Your task to perform on an android device: Open Google Chrome Image 0: 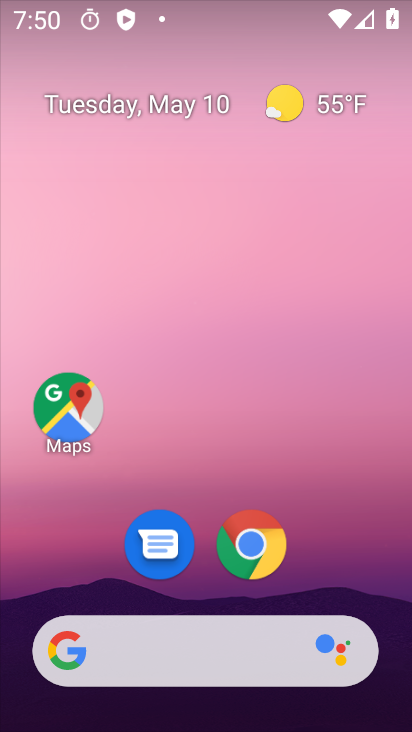
Step 0: click (258, 546)
Your task to perform on an android device: Open Google Chrome Image 1: 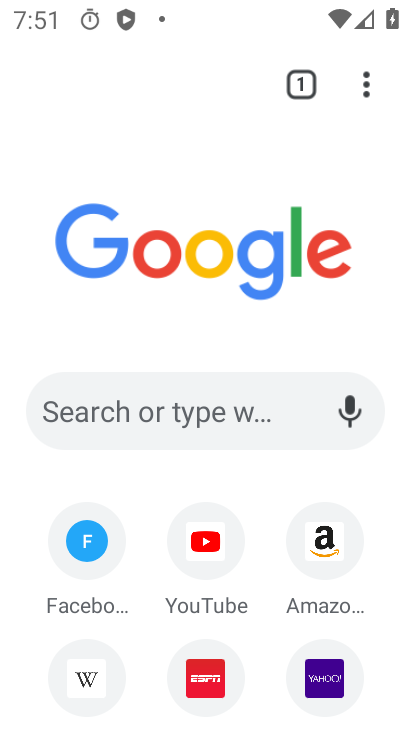
Step 1: task complete